Your task to perform on an android device: Open CNN.com Image 0: 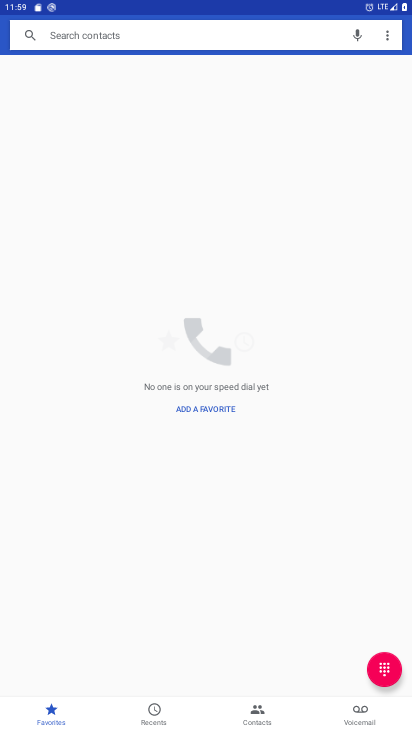
Step 0: press home button
Your task to perform on an android device: Open CNN.com Image 1: 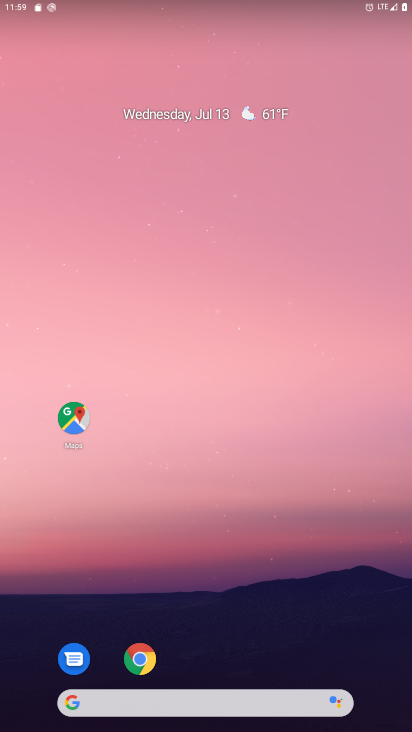
Step 1: click (138, 653)
Your task to perform on an android device: Open CNN.com Image 2: 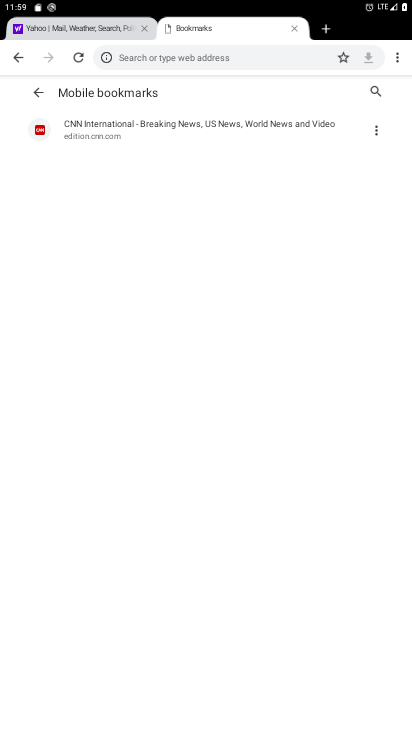
Step 2: click (318, 26)
Your task to perform on an android device: Open CNN.com Image 3: 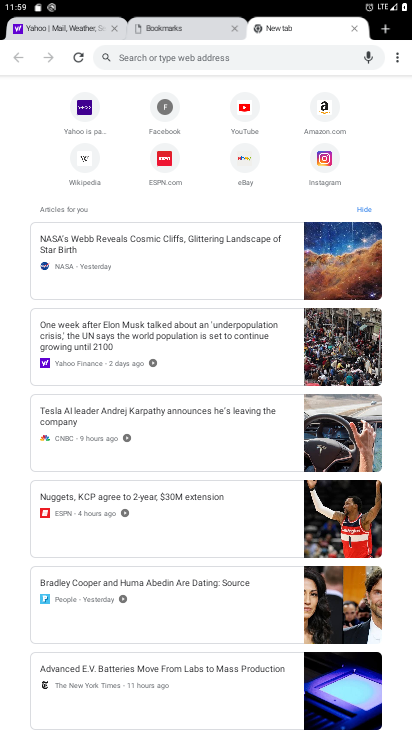
Step 3: type "cnn.com"
Your task to perform on an android device: Open CNN.com Image 4: 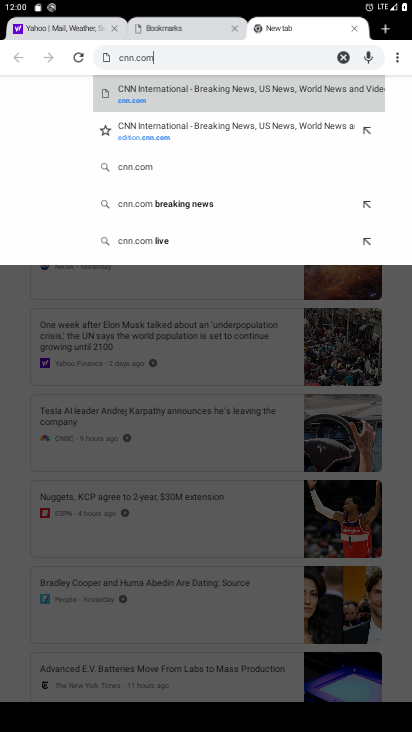
Step 4: click (168, 90)
Your task to perform on an android device: Open CNN.com Image 5: 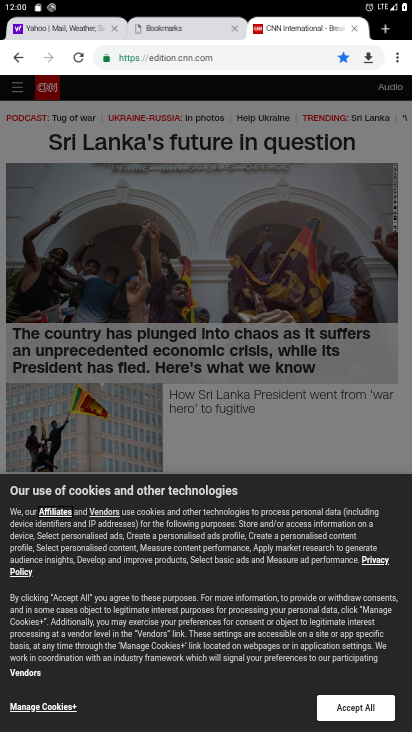
Step 5: click (362, 707)
Your task to perform on an android device: Open CNN.com Image 6: 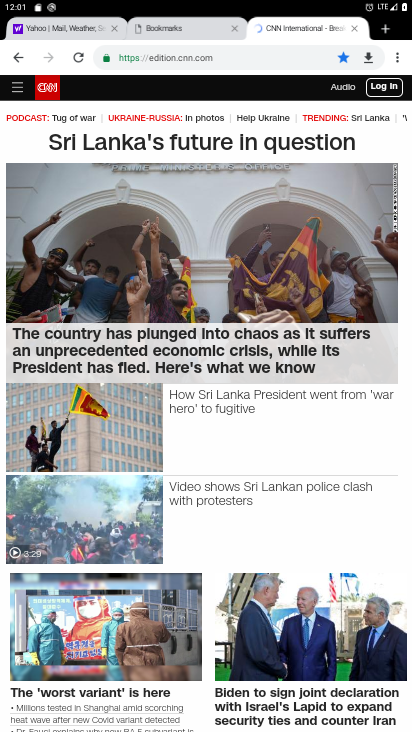
Step 6: task complete